Your task to perform on an android device: Go to Wikipedia Image 0: 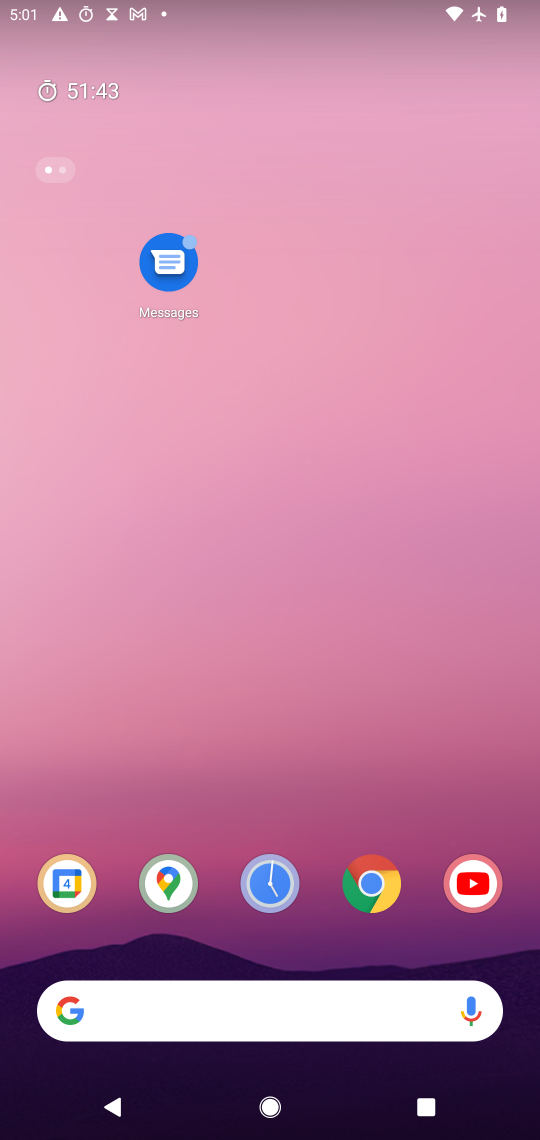
Step 0: drag from (310, 971) to (304, 89)
Your task to perform on an android device: Go to Wikipedia Image 1: 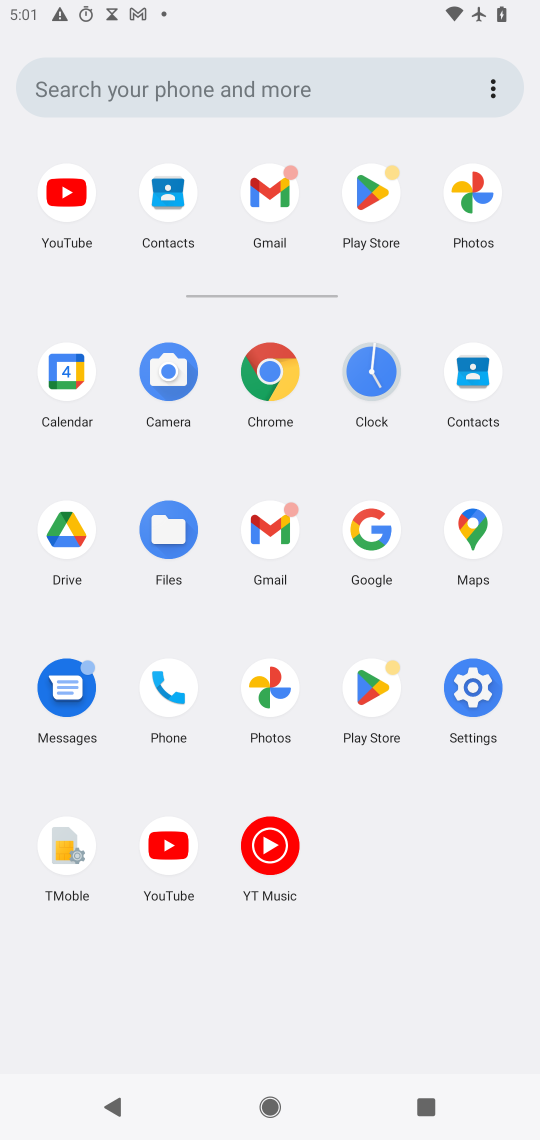
Step 1: click (272, 376)
Your task to perform on an android device: Go to Wikipedia Image 2: 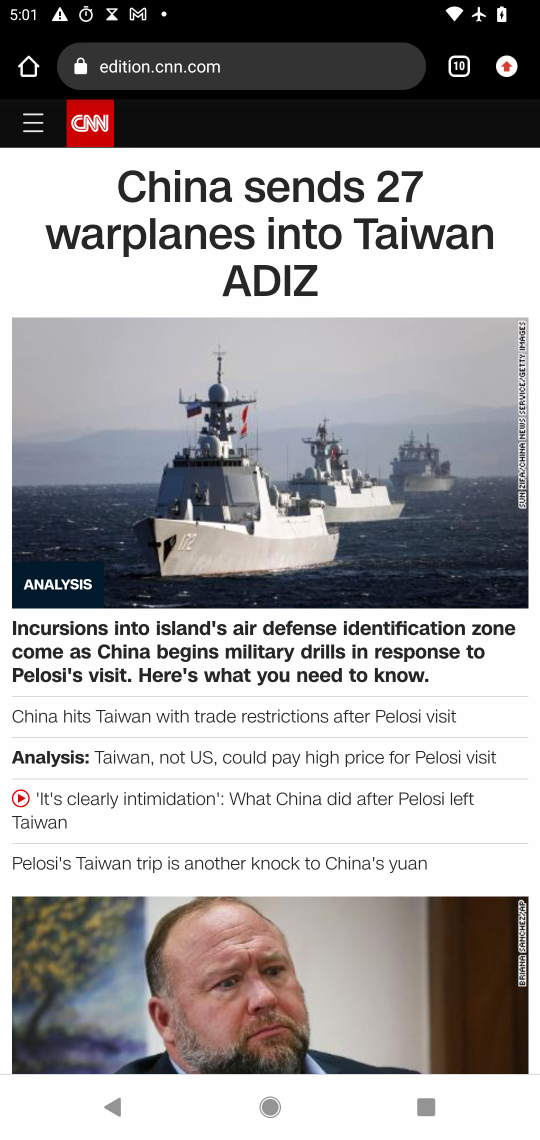
Step 2: click (510, 79)
Your task to perform on an android device: Go to Wikipedia Image 3: 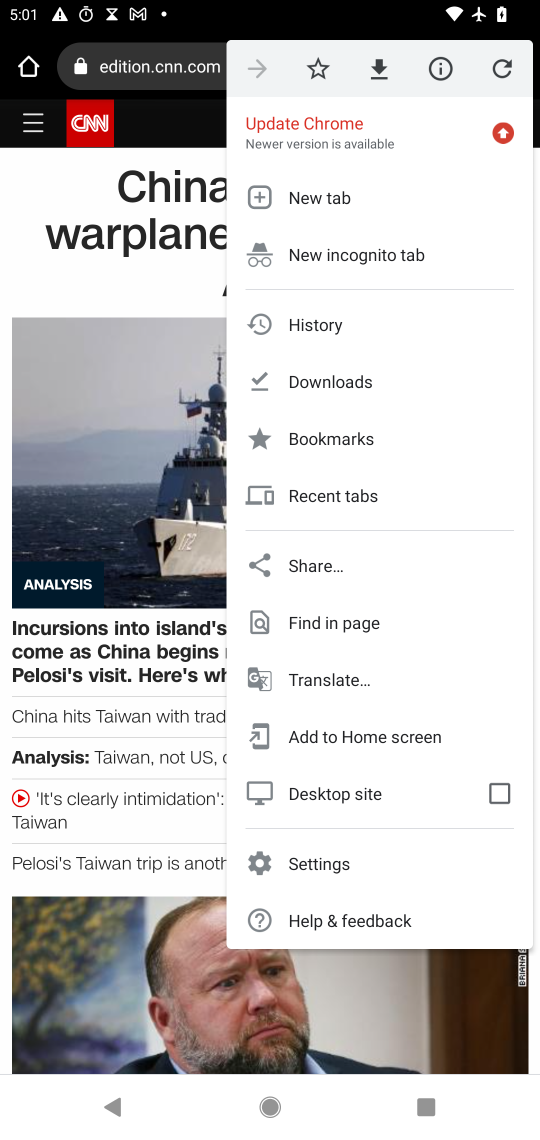
Step 3: click (328, 198)
Your task to perform on an android device: Go to Wikipedia Image 4: 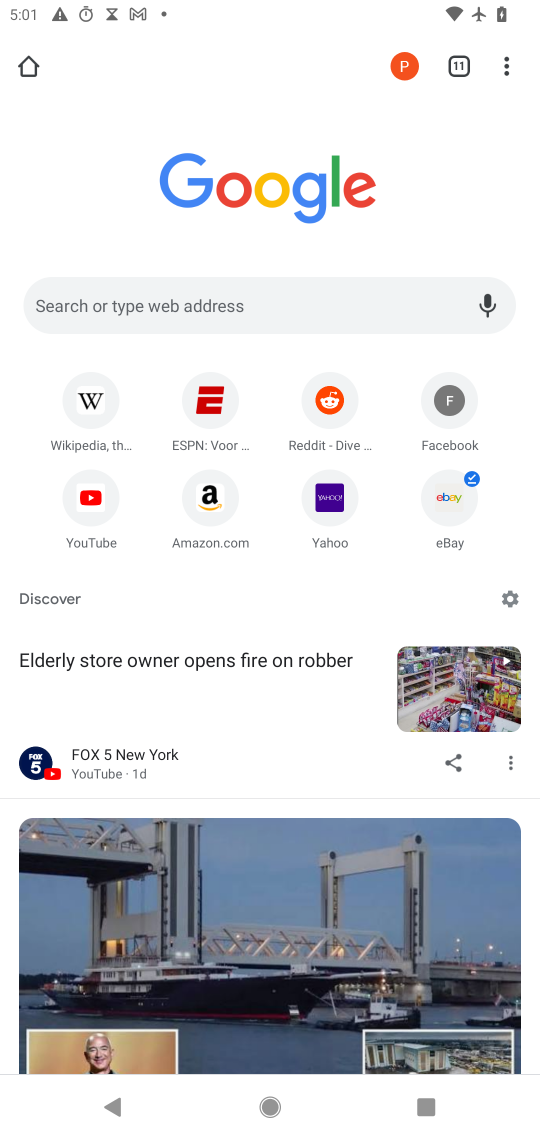
Step 4: click (86, 410)
Your task to perform on an android device: Go to Wikipedia Image 5: 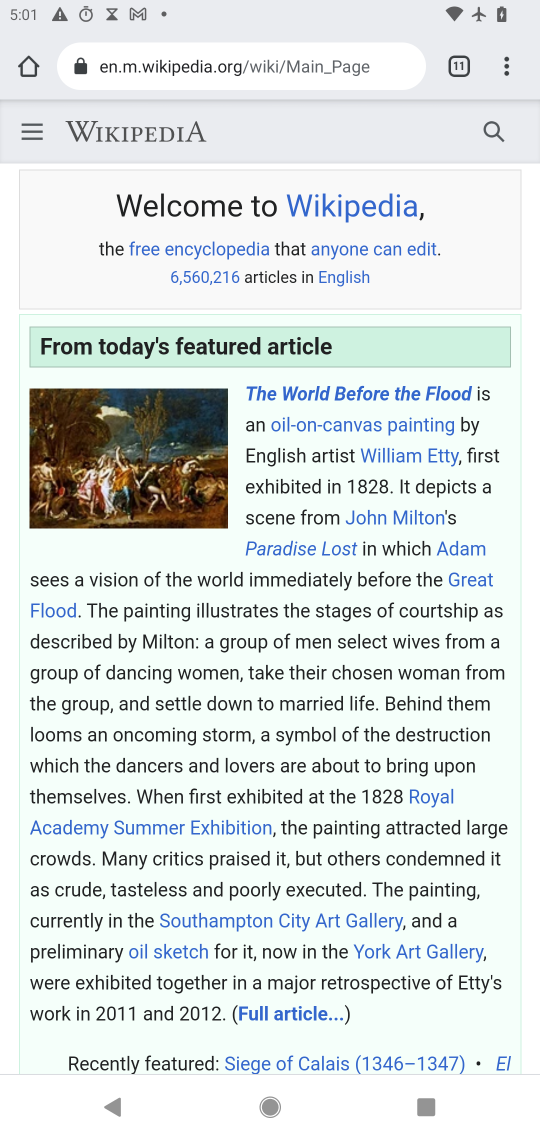
Step 5: task complete